Your task to perform on an android device: turn on data saver in the chrome app Image 0: 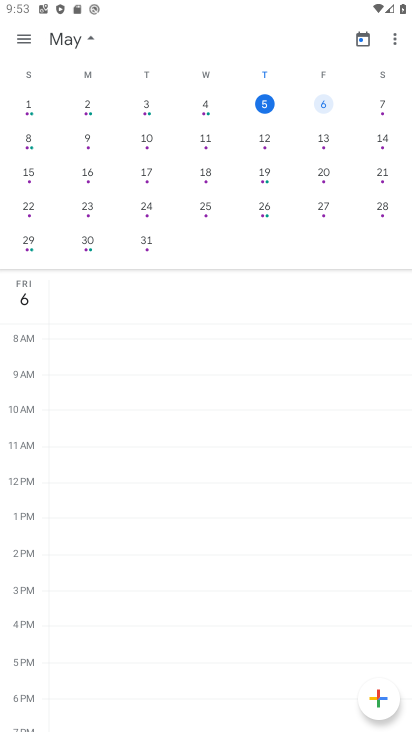
Step 0: press home button
Your task to perform on an android device: turn on data saver in the chrome app Image 1: 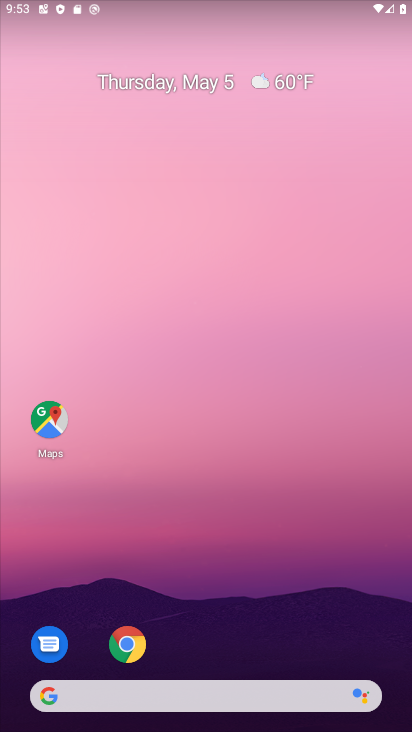
Step 1: click (128, 638)
Your task to perform on an android device: turn on data saver in the chrome app Image 2: 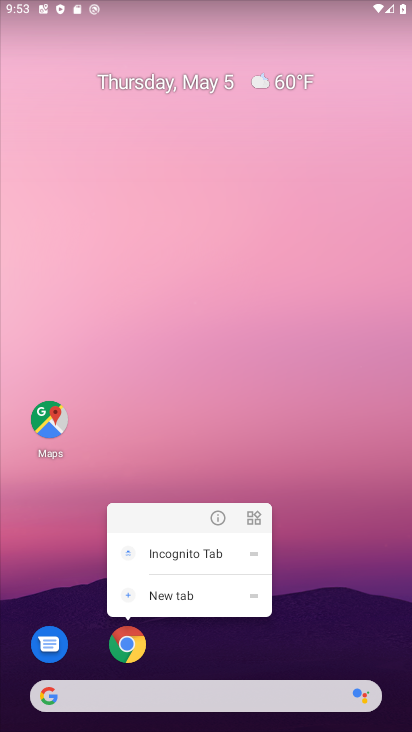
Step 2: click (139, 655)
Your task to perform on an android device: turn on data saver in the chrome app Image 3: 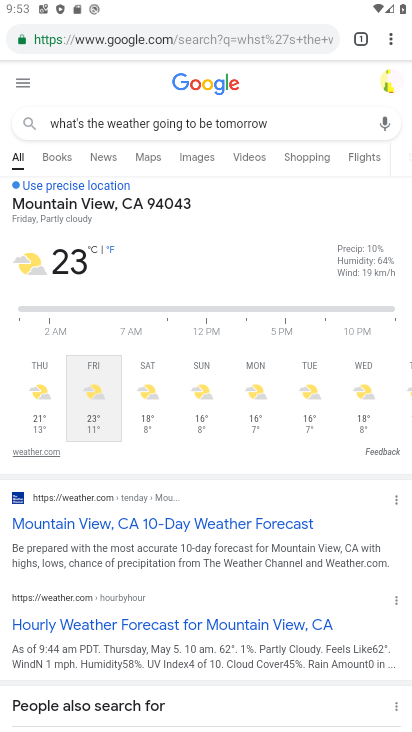
Step 3: drag from (395, 41) to (277, 444)
Your task to perform on an android device: turn on data saver in the chrome app Image 4: 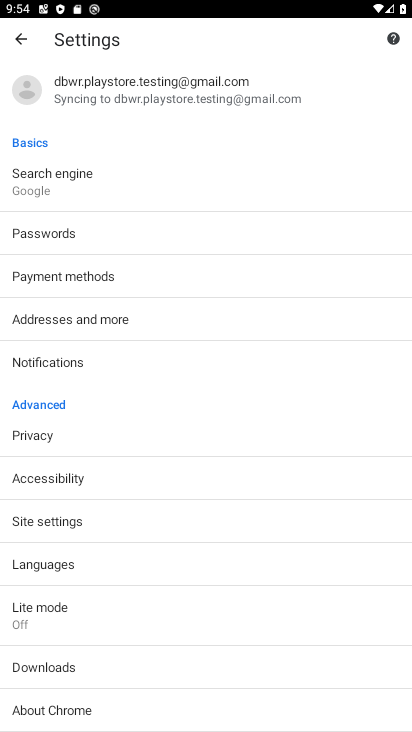
Step 4: click (88, 627)
Your task to perform on an android device: turn on data saver in the chrome app Image 5: 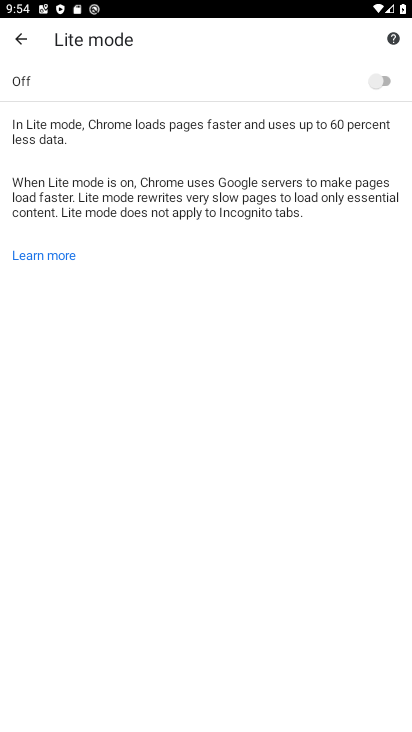
Step 5: click (380, 81)
Your task to perform on an android device: turn on data saver in the chrome app Image 6: 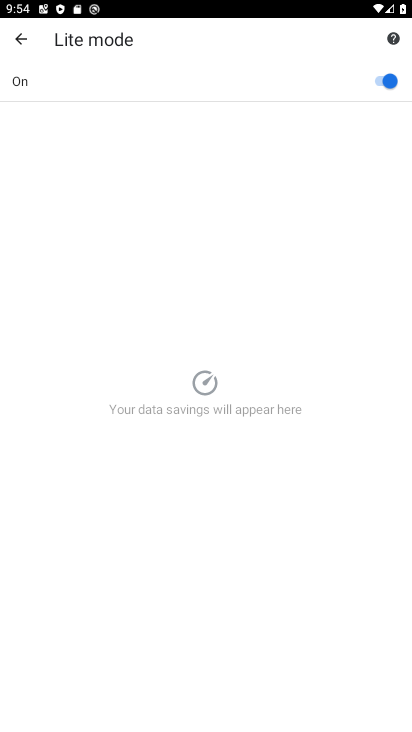
Step 6: task complete